Your task to perform on an android device: allow notifications from all sites in the chrome app Image 0: 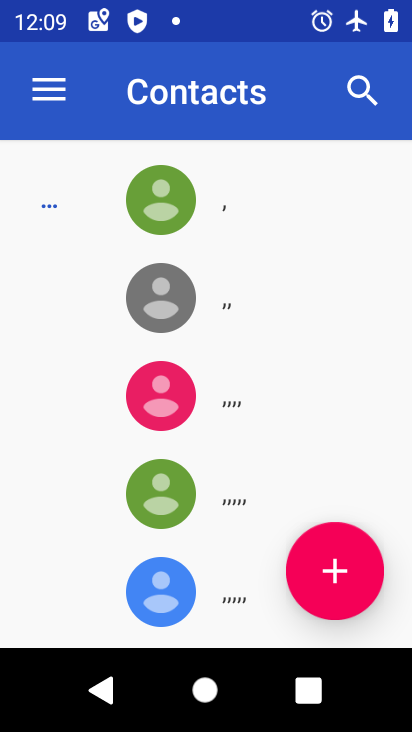
Step 0: press home button
Your task to perform on an android device: allow notifications from all sites in the chrome app Image 1: 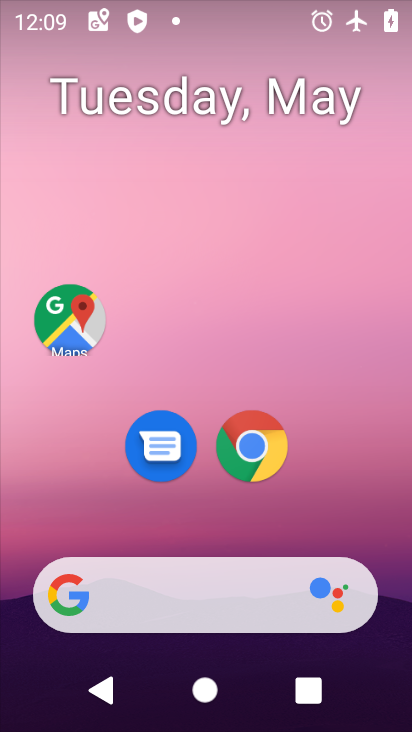
Step 1: drag from (270, 538) to (306, 185)
Your task to perform on an android device: allow notifications from all sites in the chrome app Image 2: 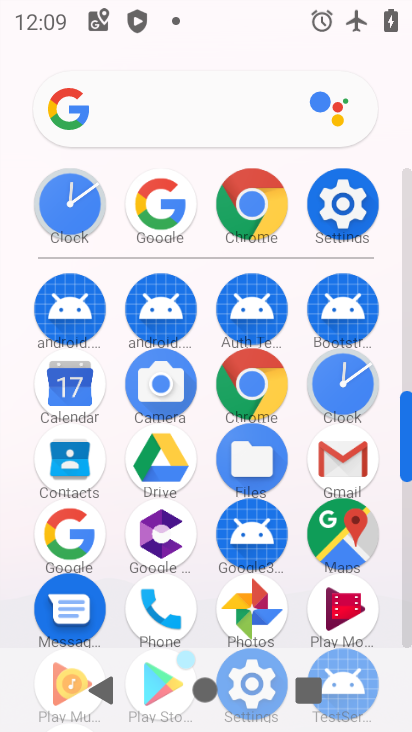
Step 2: click (257, 186)
Your task to perform on an android device: allow notifications from all sites in the chrome app Image 3: 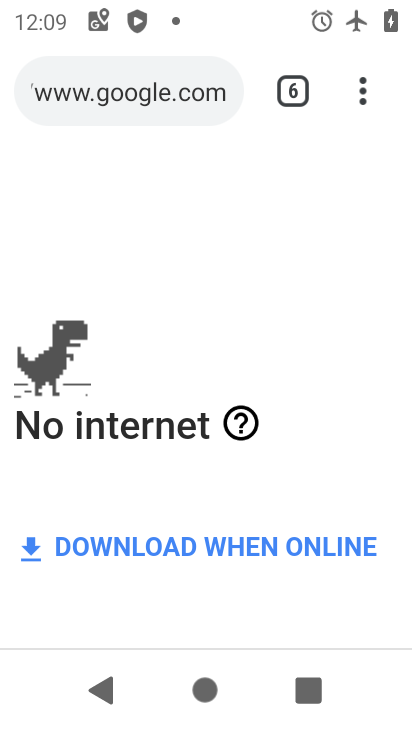
Step 3: click (362, 89)
Your task to perform on an android device: allow notifications from all sites in the chrome app Image 4: 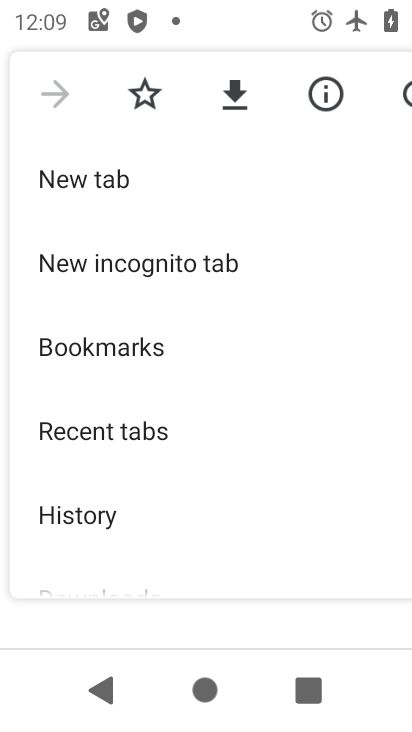
Step 4: drag from (195, 549) to (269, 166)
Your task to perform on an android device: allow notifications from all sites in the chrome app Image 5: 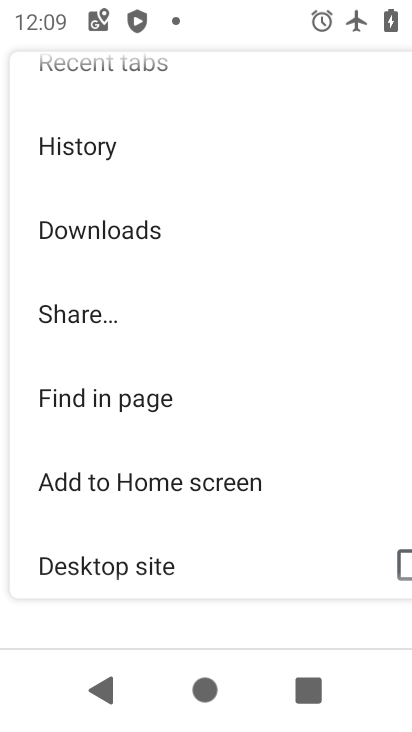
Step 5: drag from (123, 564) to (184, 242)
Your task to perform on an android device: allow notifications from all sites in the chrome app Image 6: 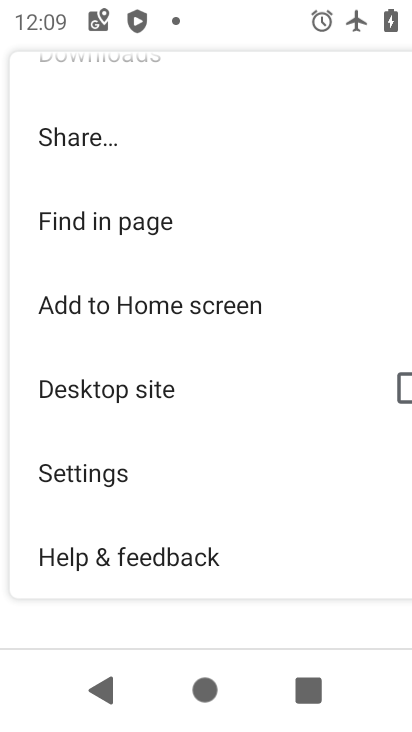
Step 6: click (94, 465)
Your task to perform on an android device: allow notifications from all sites in the chrome app Image 7: 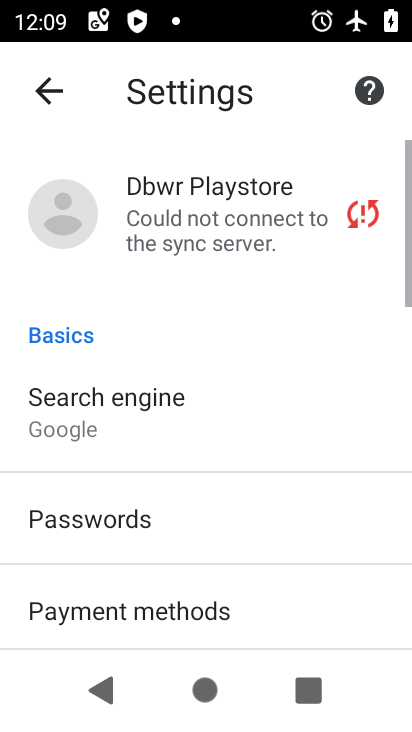
Step 7: drag from (222, 558) to (316, 142)
Your task to perform on an android device: allow notifications from all sites in the chrome app Image 8: 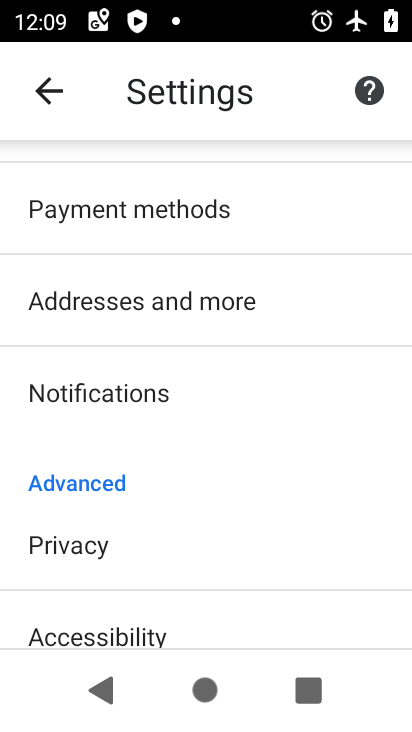
Step 8: drag from (127, 557) to (188, 205)
Your task to perform on an android device: allow notifications from all sites in the chrome app Image 9: 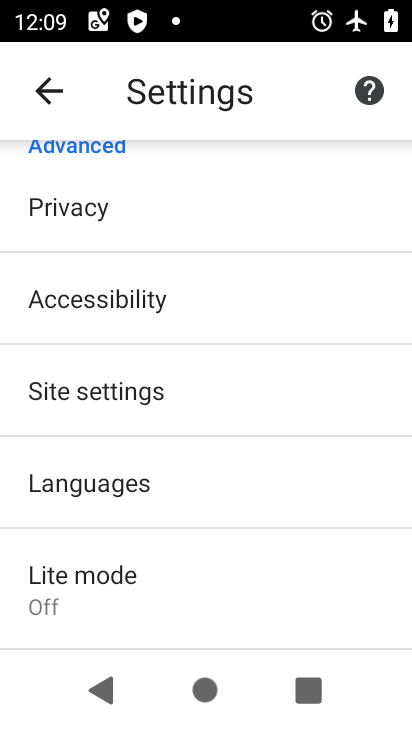
Step 9: click (129, 402)
Your task to perform on an android device: allow notifications from all sites in the chrome app Image 10: 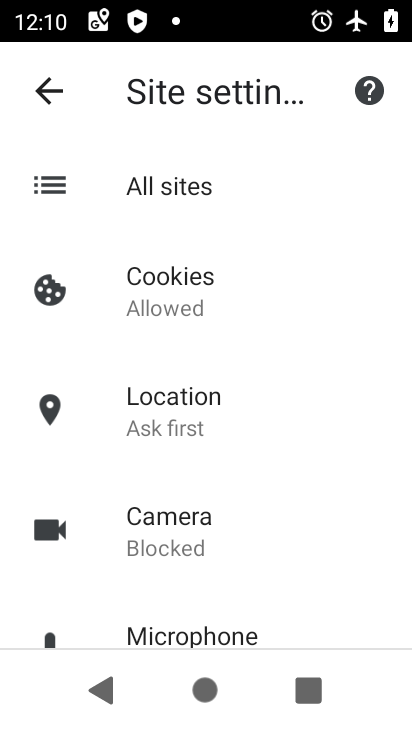
Step 10: task complete